Your task to perform on an android device: toggle pop-ups in chrome Image 0: 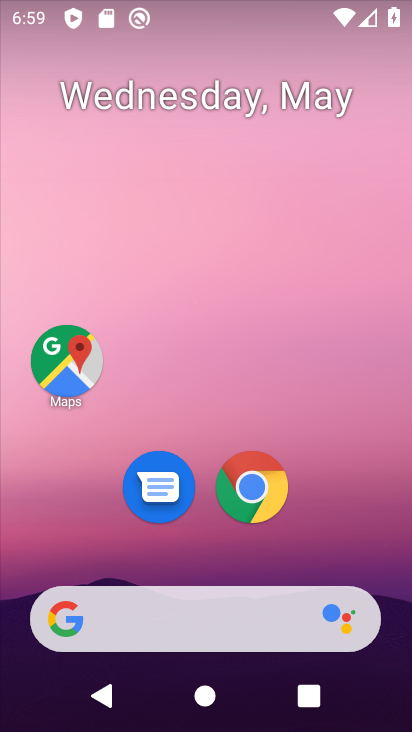
Step 0: drag from (346, 480) to (359, 51)
Your task to perform on an android device: toggle pop-ups in chrome Image 1: 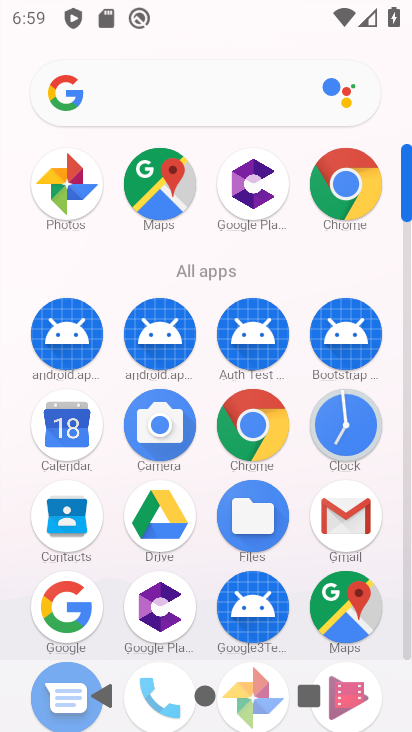
Step 1: click (358, 224)
Your task to perform on an android device: toggle pop-ups in chrome Image 2: 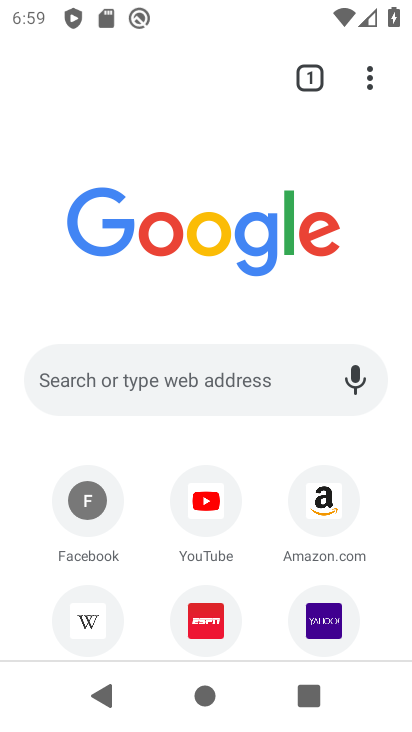
Step 2: drag from (392, 90) to (196, 547)
Your task to perform on an android device: toggle pop-ups in chrome Image 3: 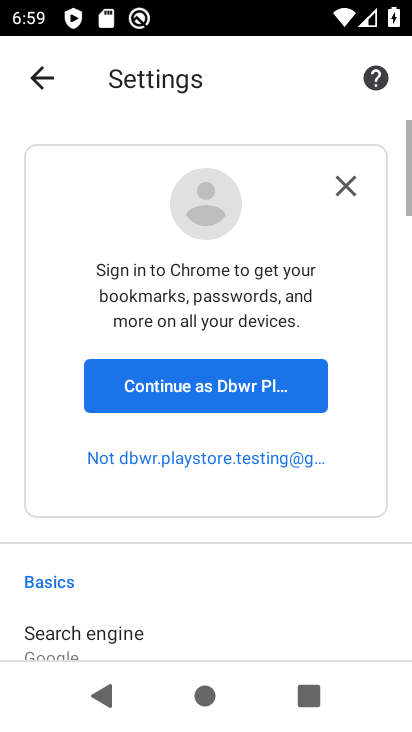
Step 3: drag from (209, 589) to (231, 224)
Your task to perform on an android device: toggle pop-ups in chrome Image 4: 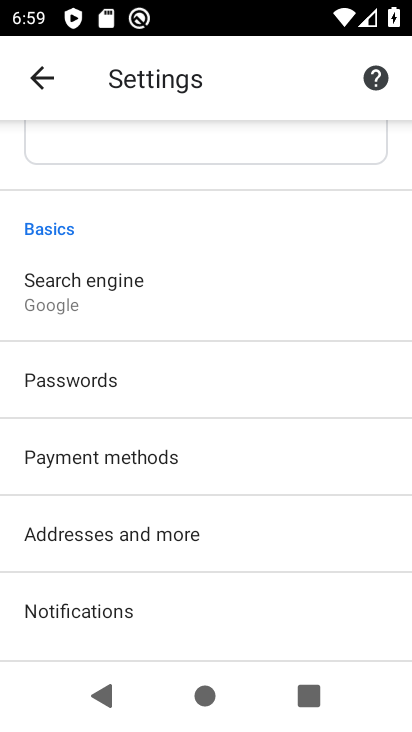
Step 4: drag from (188, 540) to (172, 230)
Your task to perform on an android device: toggle pop-ups in chrome Image 5: 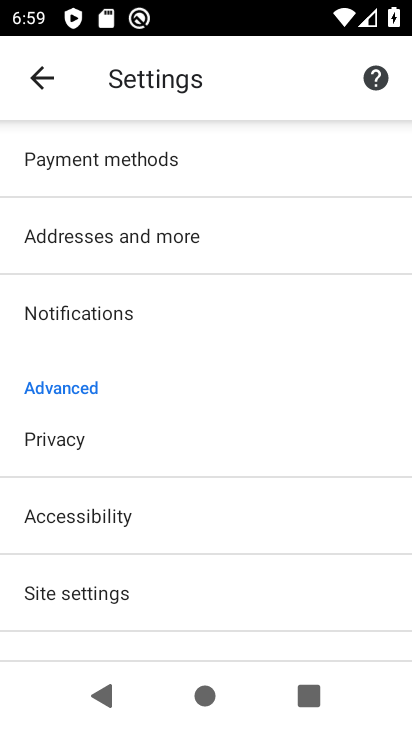
Step 5: drag from (125, 541) to (127, 287)
Your task to perform on an android device: toggle pop-ups in chrome Image 6: 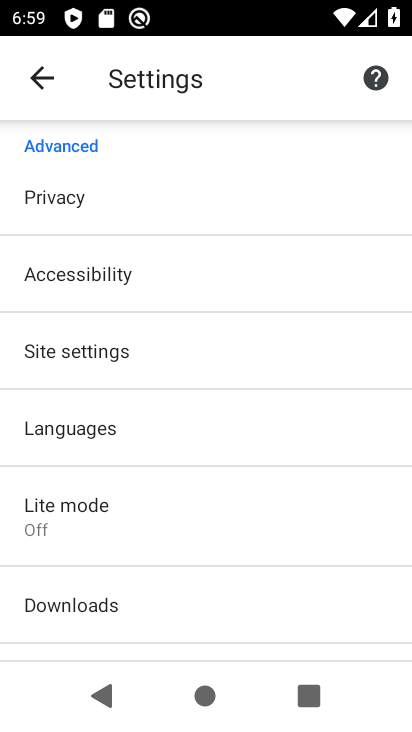
Step 6: click (127, 350)
Your task to perform on an android device: toggle pop-ups in chrome Image 7: 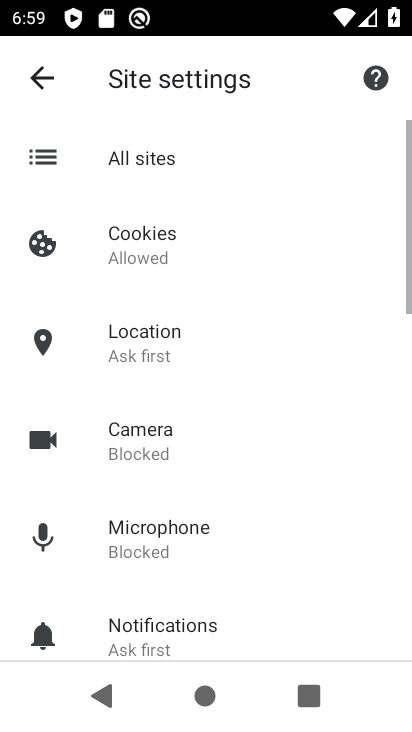
Step 7: drag from (175, 534) to (156, 204)
Your task to perform on an android device: toggle pop-ups in chrome Image 8: 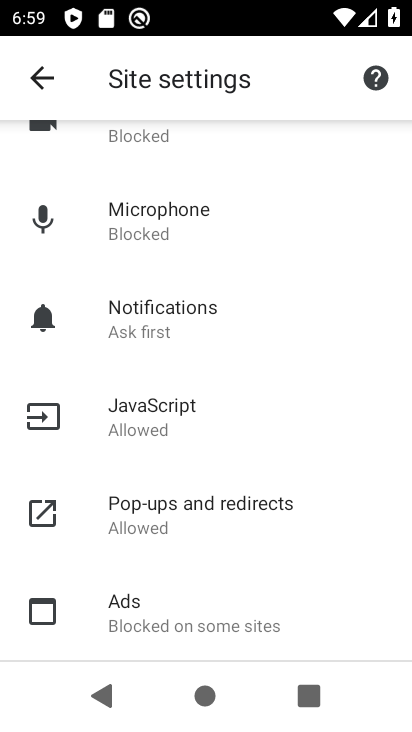
Step 8: click (183, 507)
Your task to perform on an android device: toggle pop-ups in chrome Image 9: 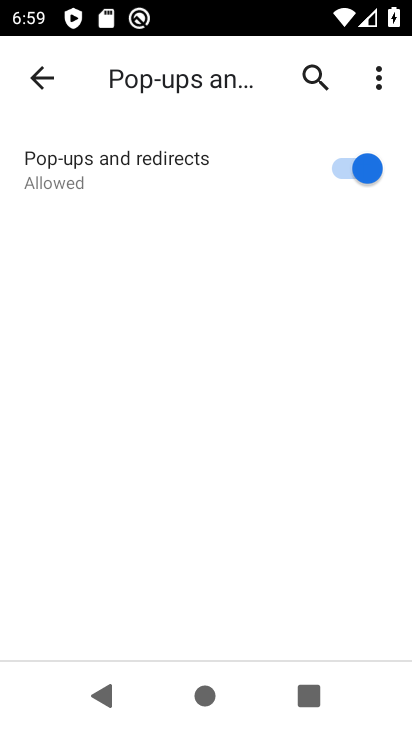
Step 9: click (350, 163)
Your task to perform on an android device: toggle pop-ups in chrome Image 10: 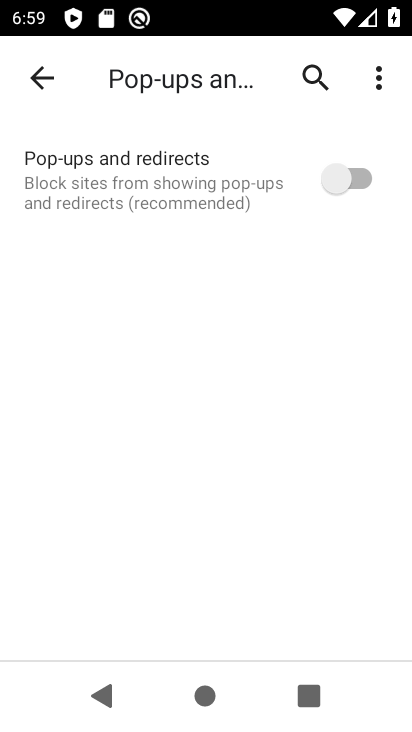
Step 10: task complete